Your task to perform on an android device: What's the weather going to be tomorrow? Image 0: 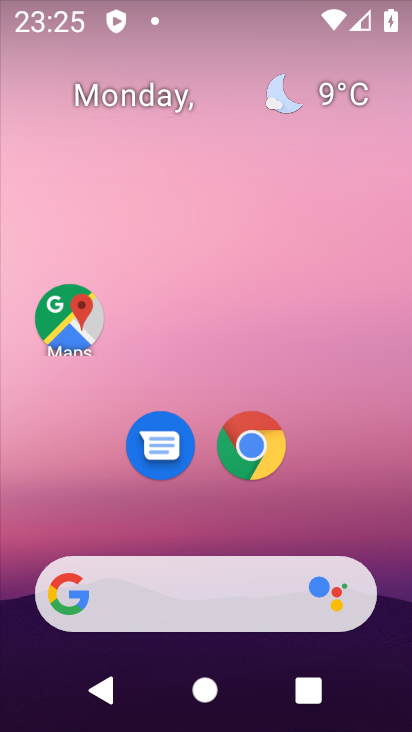
Step 0: drag from (255, 632) to (238, 28)
Your task to perform on an android device: What's the weather going to be tomorrow? Image 1: 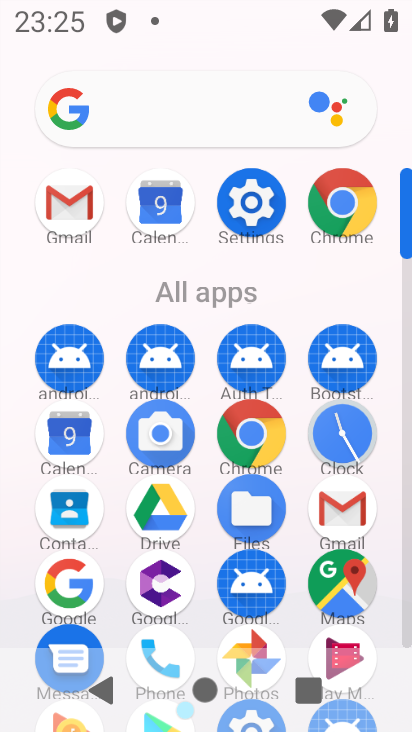
Step 1: click (244, 423)
Your task to perform on an android device: What's the weather going to be tomorrow? Image 2: 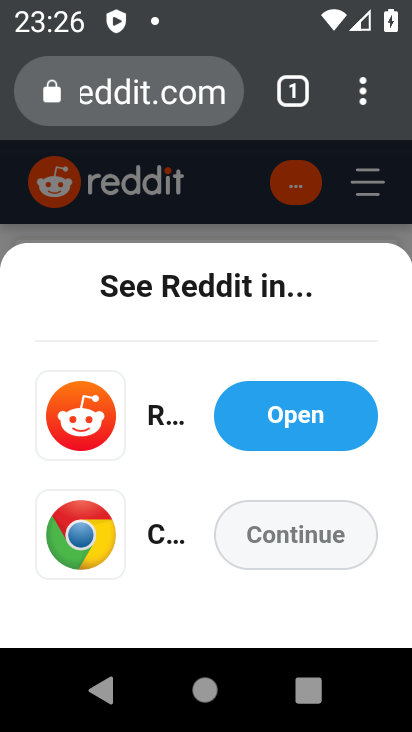
Step 2: click (159, 88)
Your task to perform on an android device: What's the weather going to be tomorrow? Image 3: 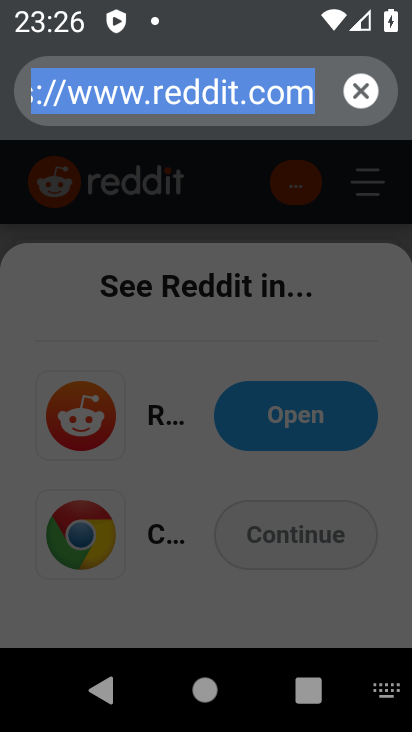
Step 3: click (370, 92)
Your task to perform on an android device: What's the weather going to be tomorrow? Image 4: 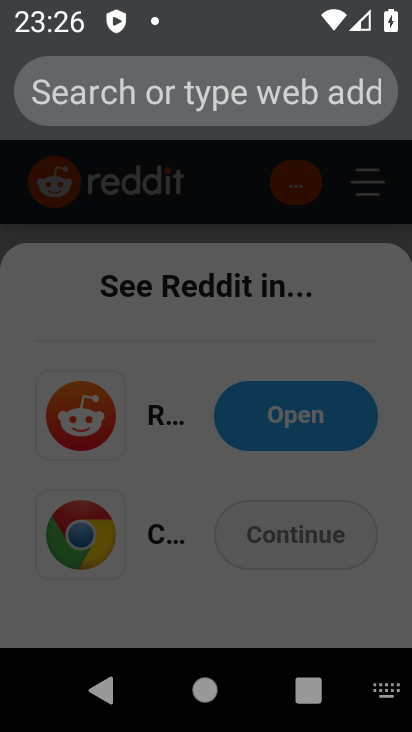
Step 4: type "weather going to be tomorrow"
Your task to perform on an android device: What's the weather going to be tomorrow? Image 5: 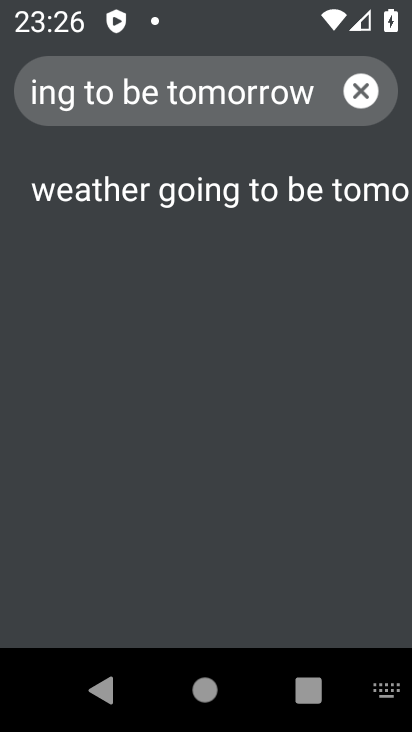
Step 5: click (341, 184)
Your task to perform on an android device: What's the weather going to be tomorrow? Image 6: 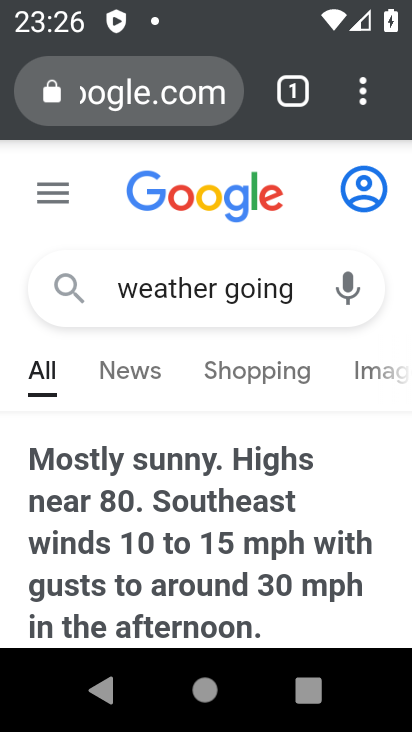
Step 6: task complete